Your task to perform on an android device: clear history in the chrome app Image 0: 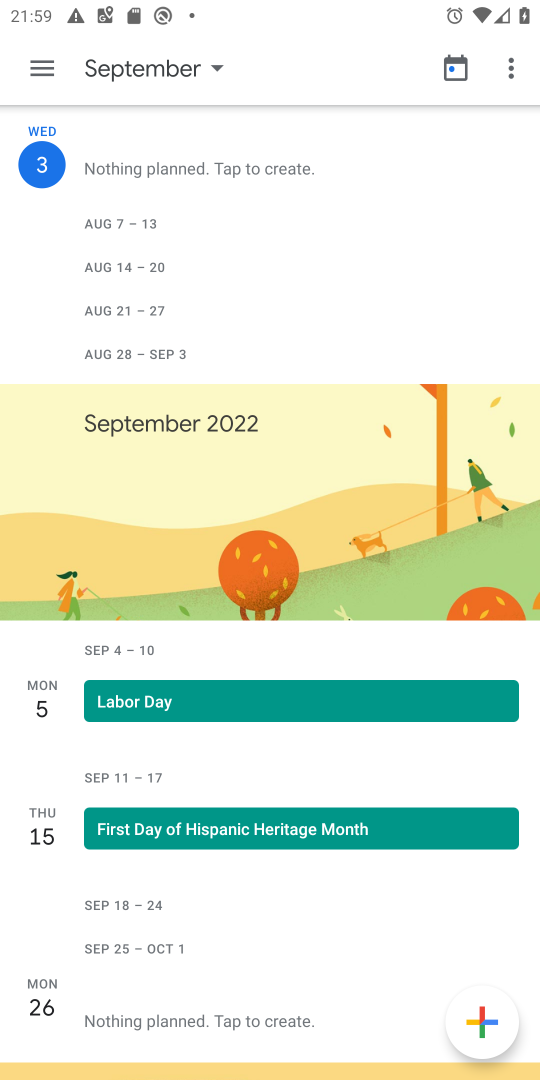
Step 0: press home button
Your task to perform on an android device: clear history in the chrome app Image 1: 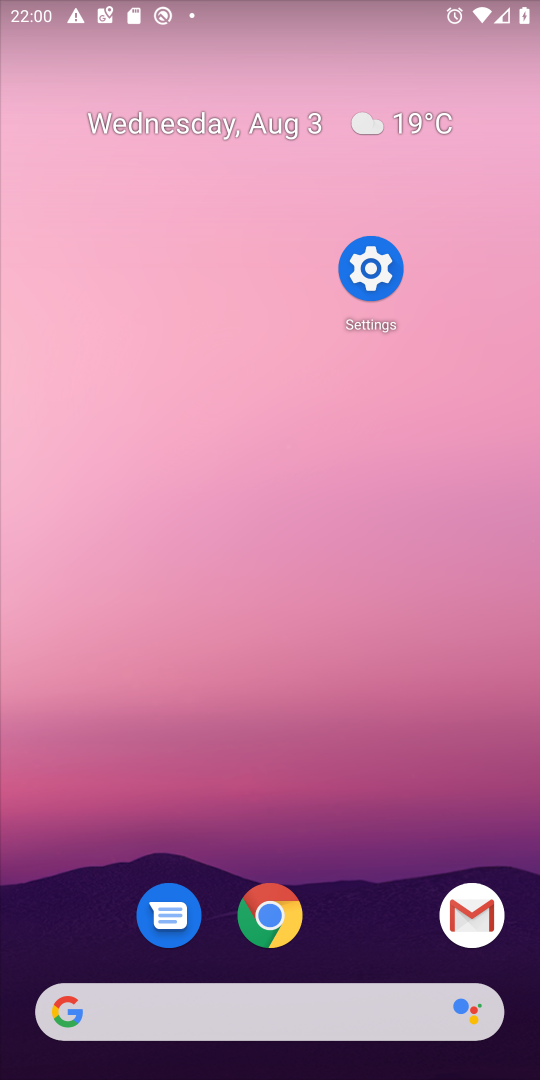
Step 1: drag from (333, 1042) to (230, 515)
Your task to perform on an android device: clear history in the chrome app Image 2: 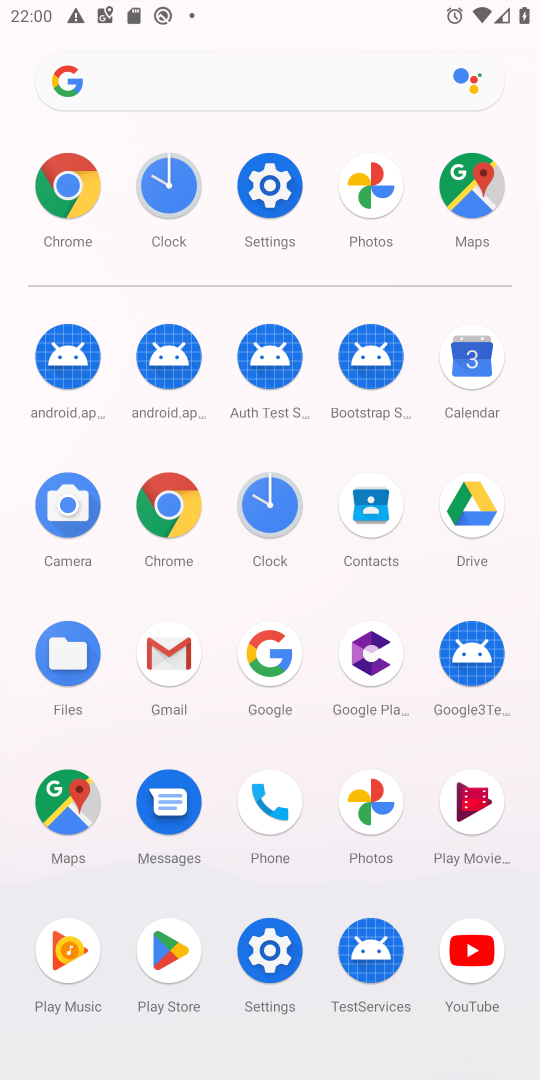
Step 2: click (66, 186)
Your task to perform on an android device: clear history in the chrome app Image 3: 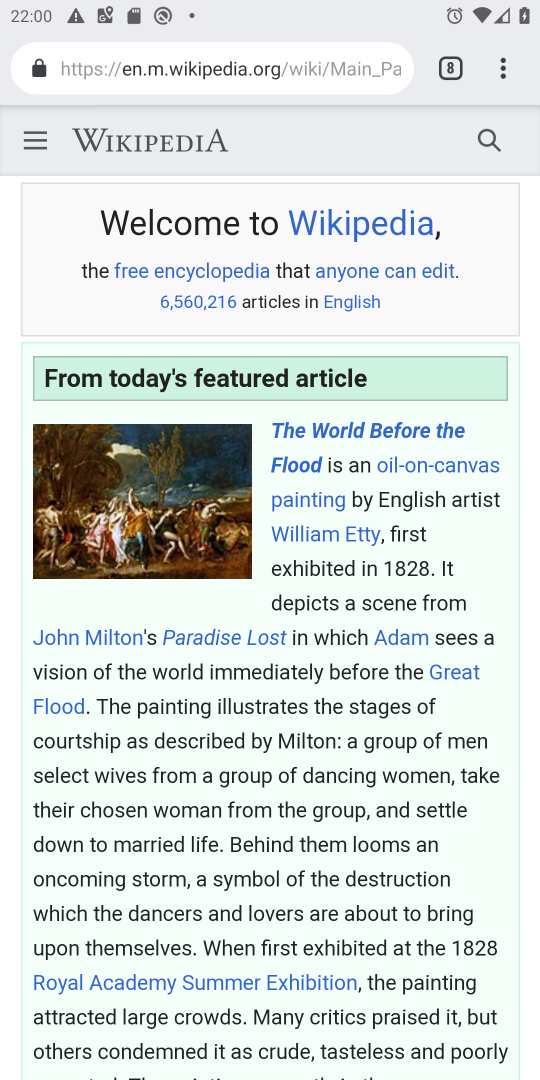
Step 3: click (500, 68)
Your task to perform on an android device: clear history in the chrome app Image 4: 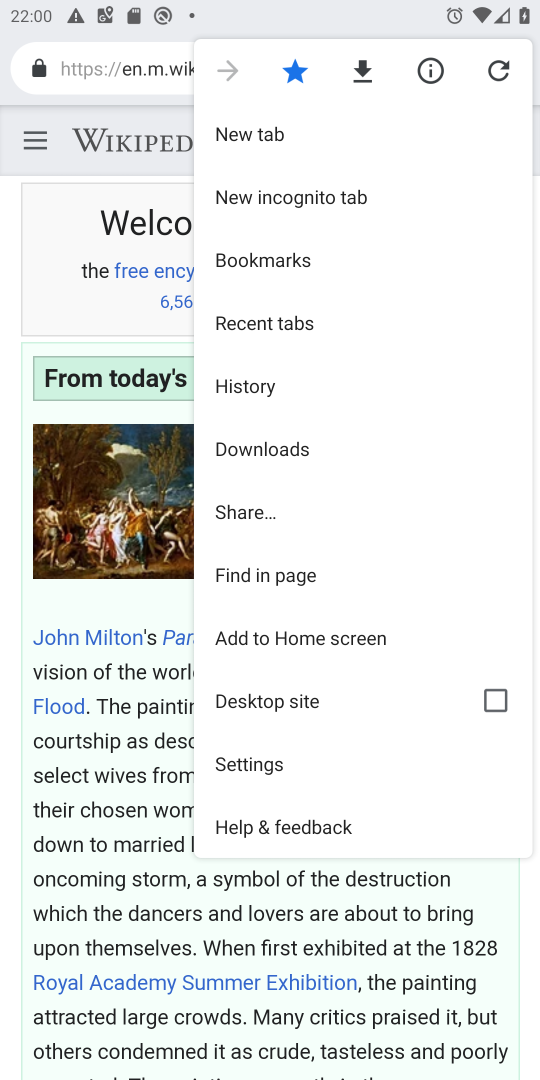
Step 4: click (255, 754)
Your task to perform on an android device: clear history in the chrome app Image 5: 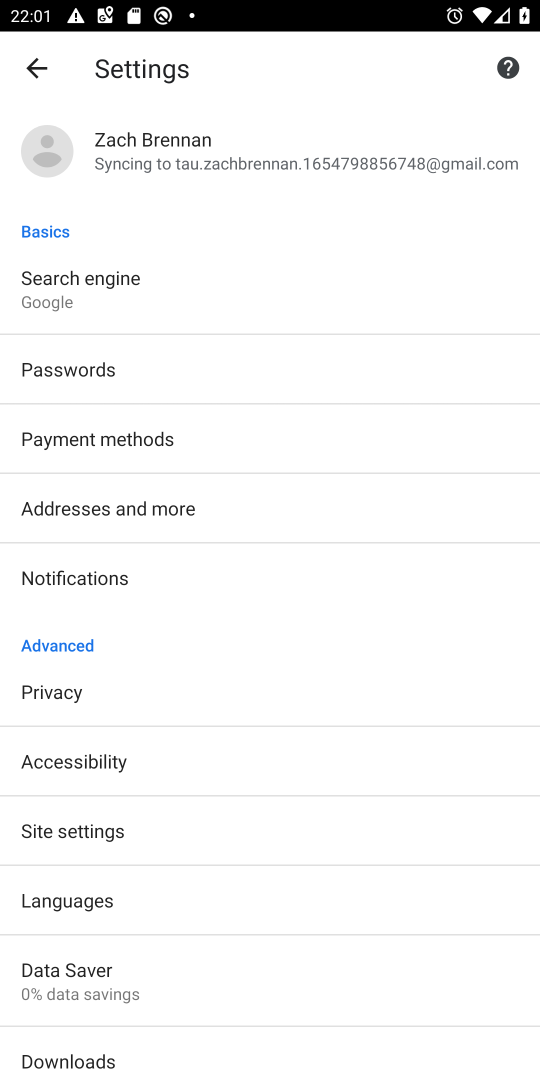
Step 5: click (97, 699)
Your task to perform on an android device: clear history in the chrome app Image 6: 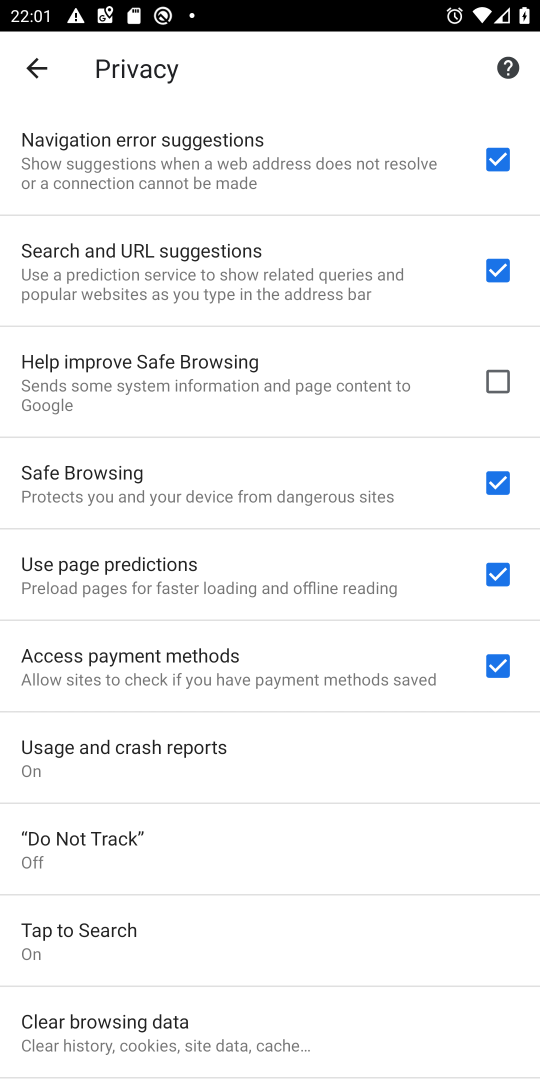
Step 6: click (113, 1014)
Your task to perform on an android device: clear history in the chrome app Image 7: 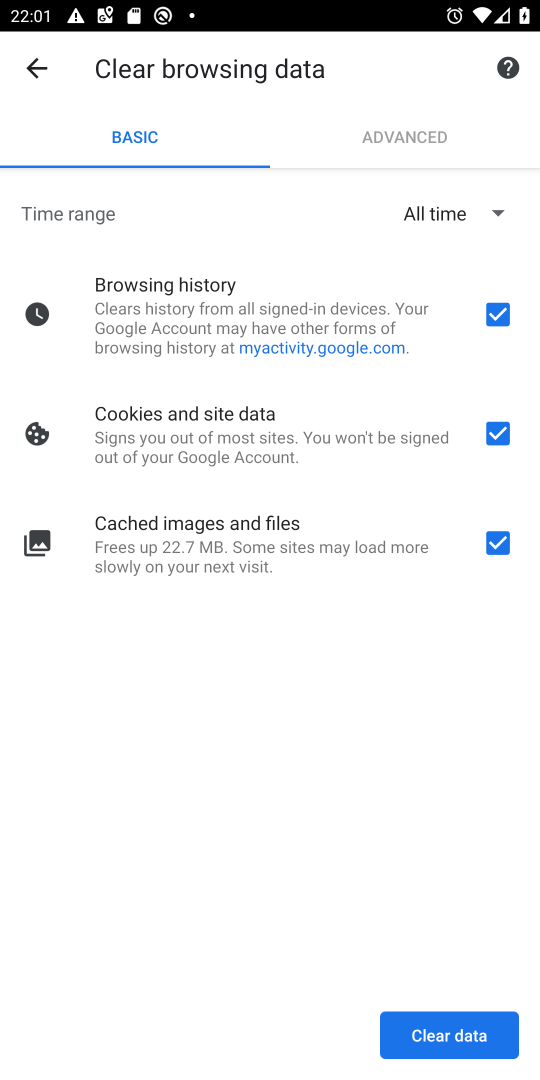
Step 7: click (462, 1022)
Your task to perform on an android device: clear history in the chrome app Image 8: 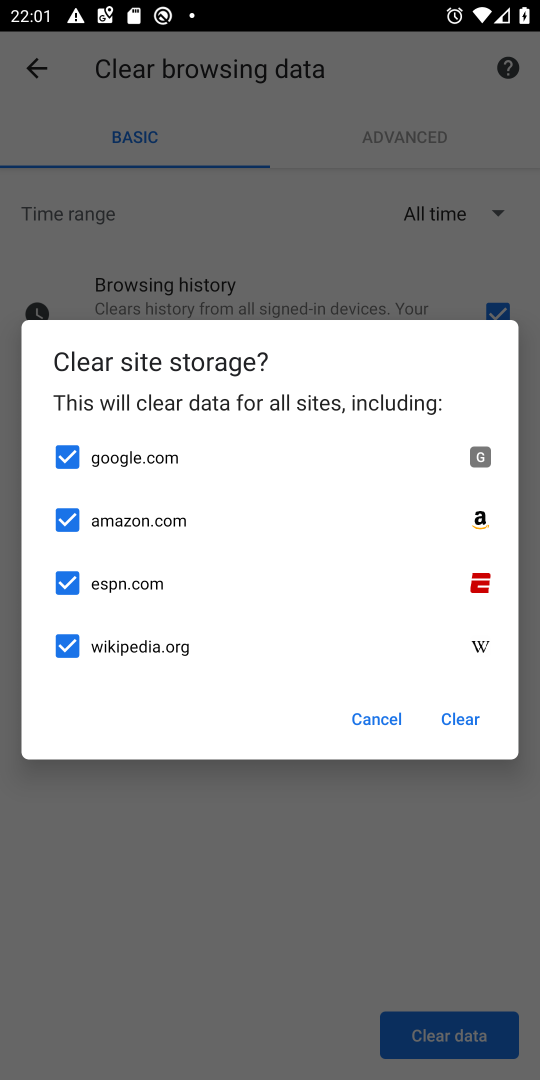
Step 8: click (449, 715)
Your task to perform on an android device: clear history in the chrome app Image 9: 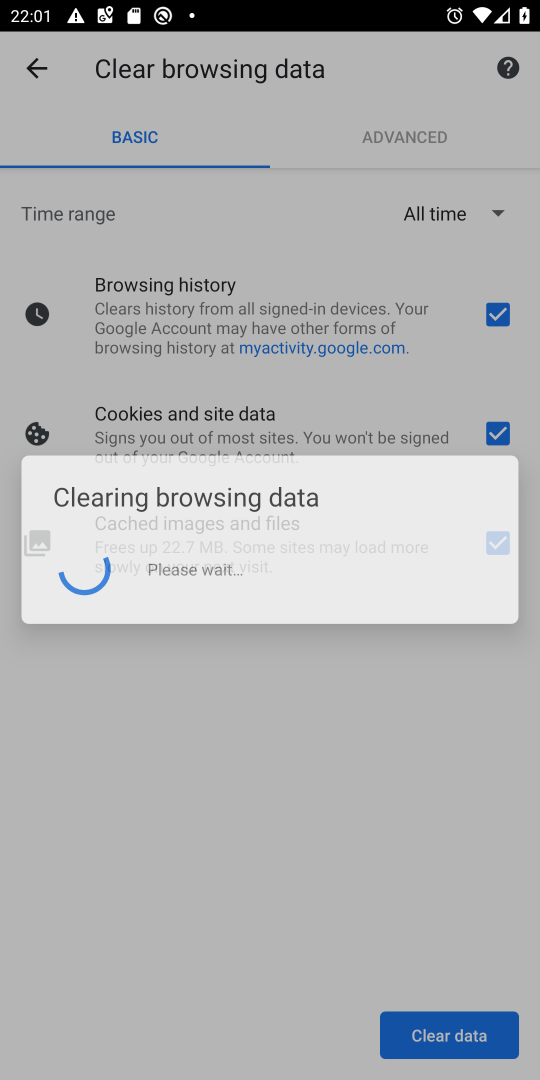
Step 9: task complete